Your task to perform on an android device: Open my contact list Image 0: 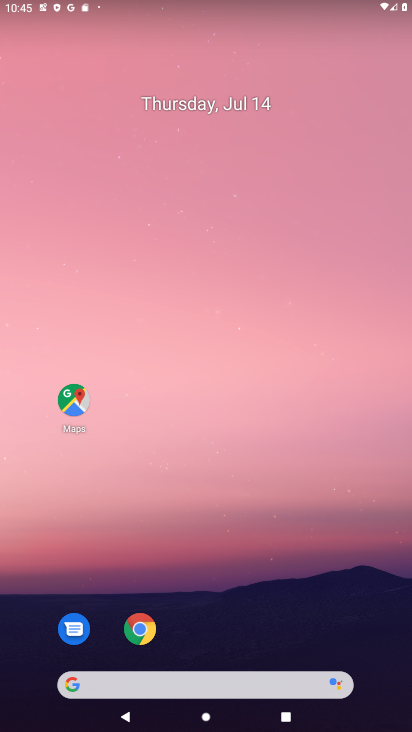
Step 0: drag from (97, 526) to (284, 137)
Your task to perform on an android device: Open my contact list Image 1: 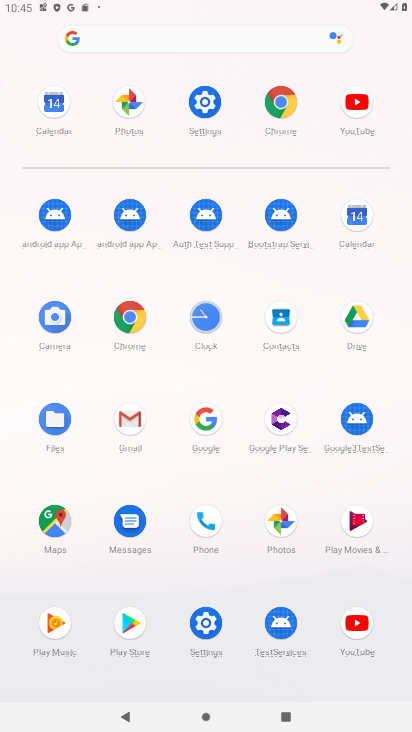
Step 1: click (206, 517)
Your task to perform on an android device: Open my contact list Image 2: 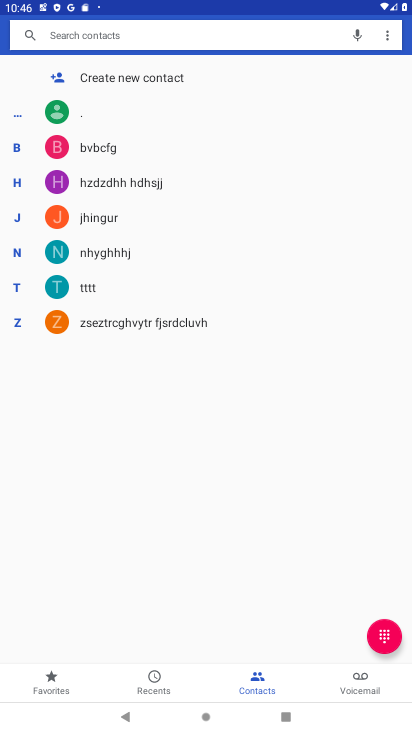
Step 2: task complete